Your task to perform on an android device: View the shopping cart on ebay.com. Add "sony triple a" to the cart on ebay.com Image 0: 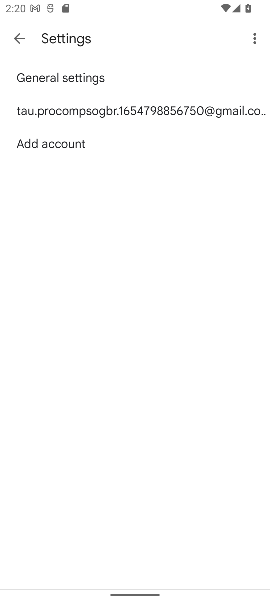
Step 0: press home button
Your task to perform on an android device: View the shopping cart on ebay.com. Add "sony triple a" to the cart on ebay.com Image 1: 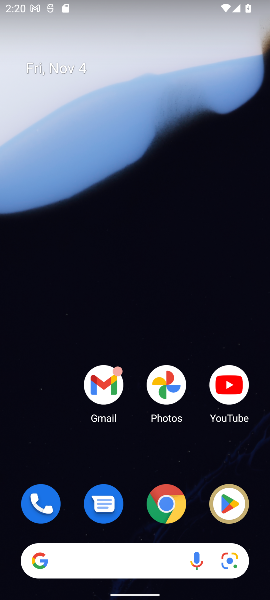
Step 1: click (159, 508)
Your task to perform on an android device: View the shopping cart on ebay.com. Add "sony triple a" to the cart on ebay.com Image 2: 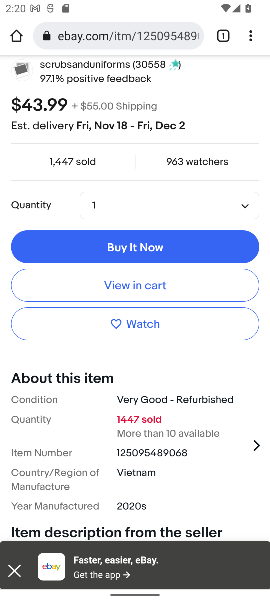
Step 2: drag from (146, 229) to (157, 435)
Your task to perform on an android device: View the shopping cart on ebay.com. Add "sony triple a" to the cart on ebay.com Image 3: 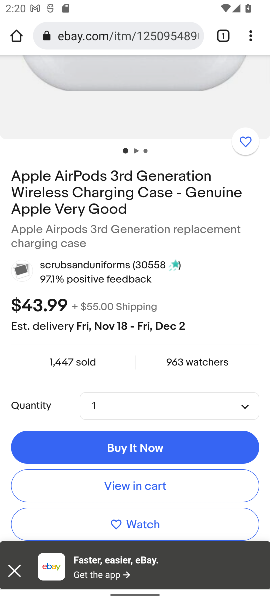
Step 3: drag from (108, 117) to (105, 357)
Your task to perform on an android device: View the shopping cart on ebay.com. Add "sony triple a" to the cart on ebay.com Image 4: 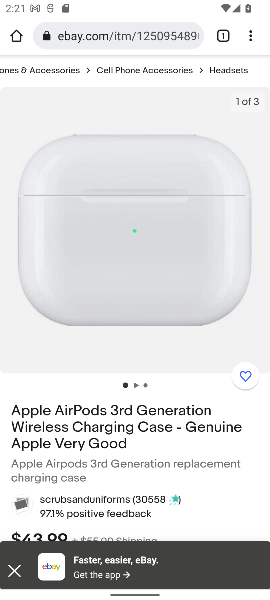
Step 4: drag from (158, 175) to (151, 341)
Your task to perform on an android device: View the shopping cart on ebay.com. Add "sony triple a" to the cart on ebay.com Image 5: 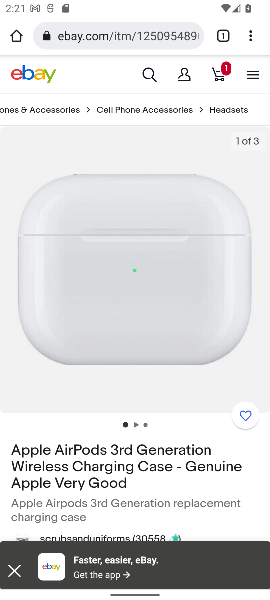
Step 5: click (219, 72)
Your task to perform on an android device: View the shopping cart on ebay.com. Add "sony triple a" to the cart on ebay.com Image 6: 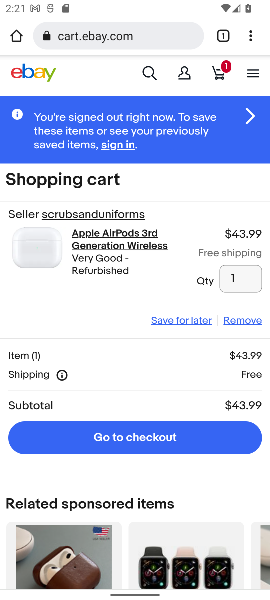
Step 6: click (144, 74)
Your task to perform on an android device: View the shopping cart on ebay.com. Add "sony triple a" to the cart on ebay.com Image 7: 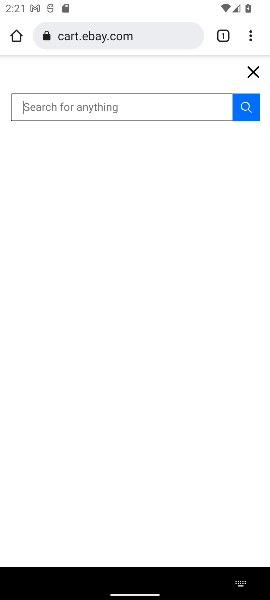
Step 7: type "sony triple a"
Your task to perform on an android device: View the shopping cart on ebay.com. Add "sony triple a" to the cart on ebay.com Image 8: 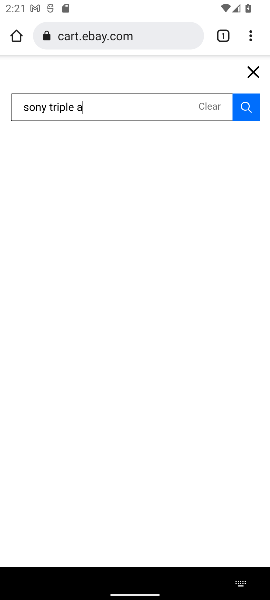
Step 8: click (239, 106)
Your task to perform on an android device: View the shopping cart on ebay.com. Add "sony triple a" to the cart on ebay.com Image 9: 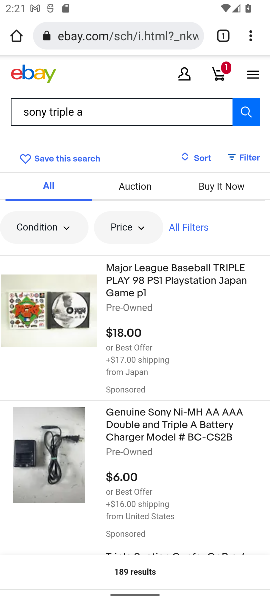
Step 9: task complete